Your task to perform on an android device: toggle location history Image 0: 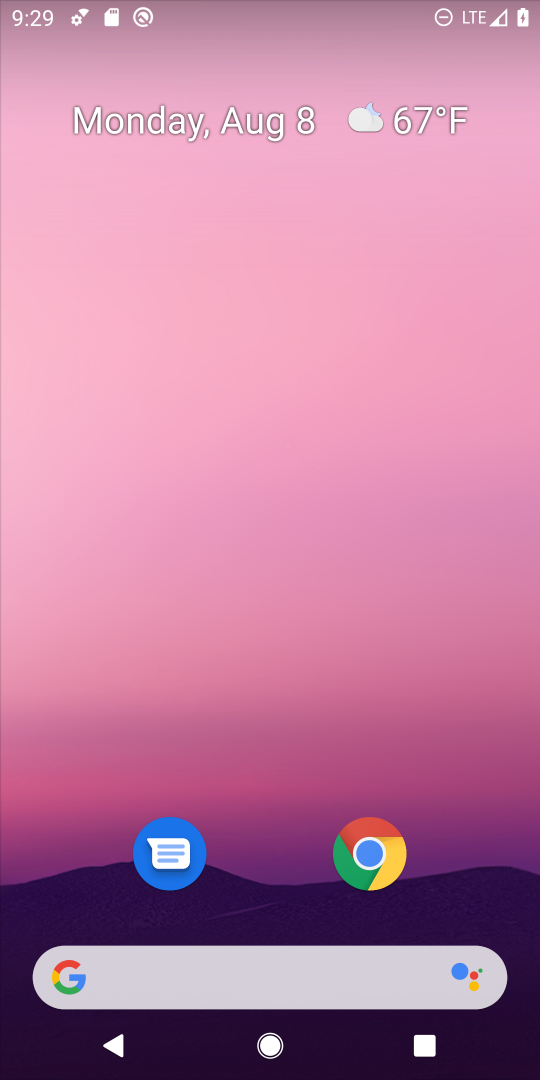
Step 0: drag from (246, 920) to (212, 4)
Your task to perform on an android device: toggle location history Image 1: 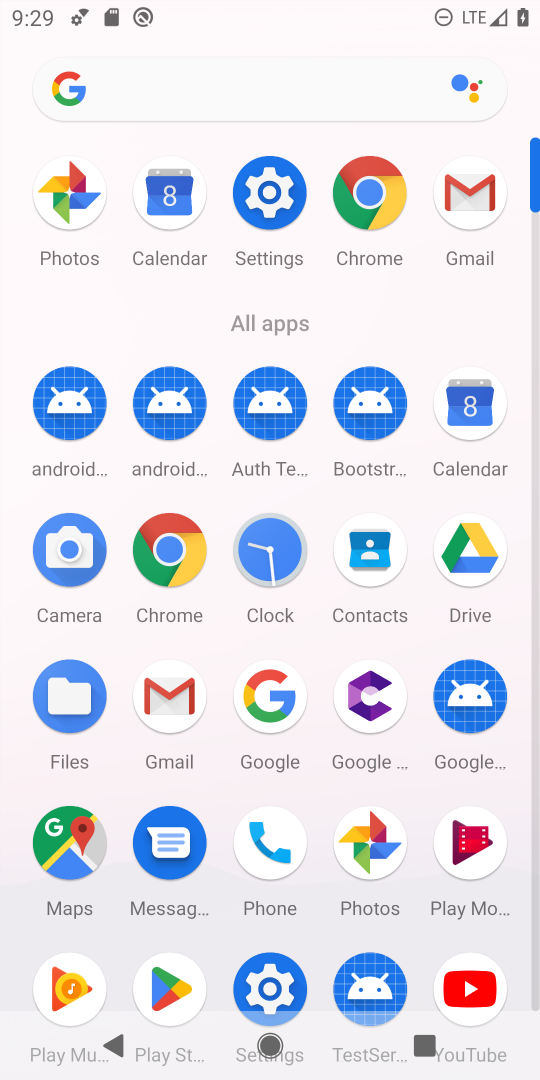
Step 1: click (277, 186)
Your task to perform on an android device: toggle location history Image 2: 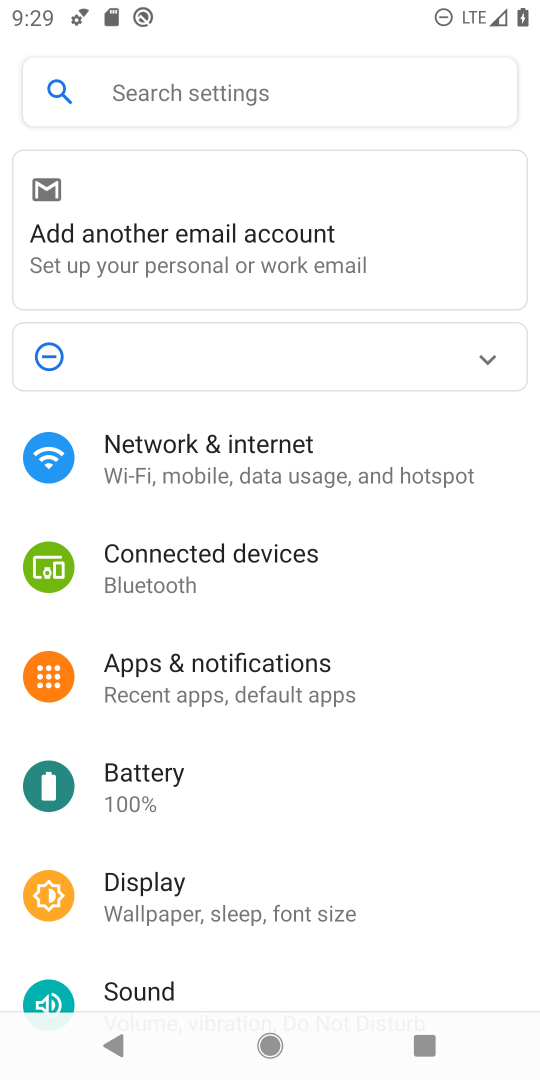
Step 2: drag from (402, 855) to (373, 375)
Your task to perform on an android device: toggle location history Image 3: 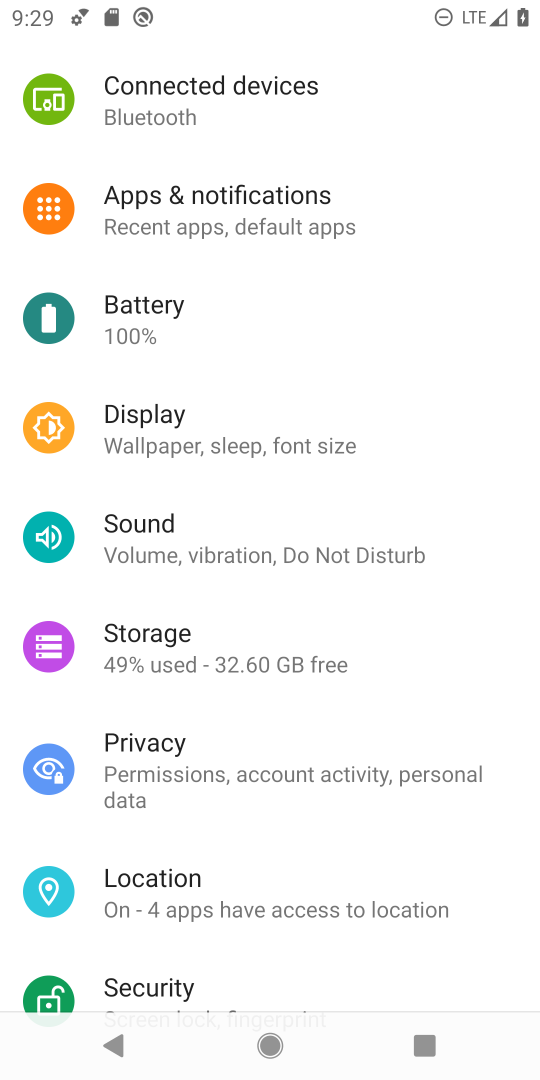
Step 3: click (221, 903)
Your task to perform on an android device: toggle location history Image 4: 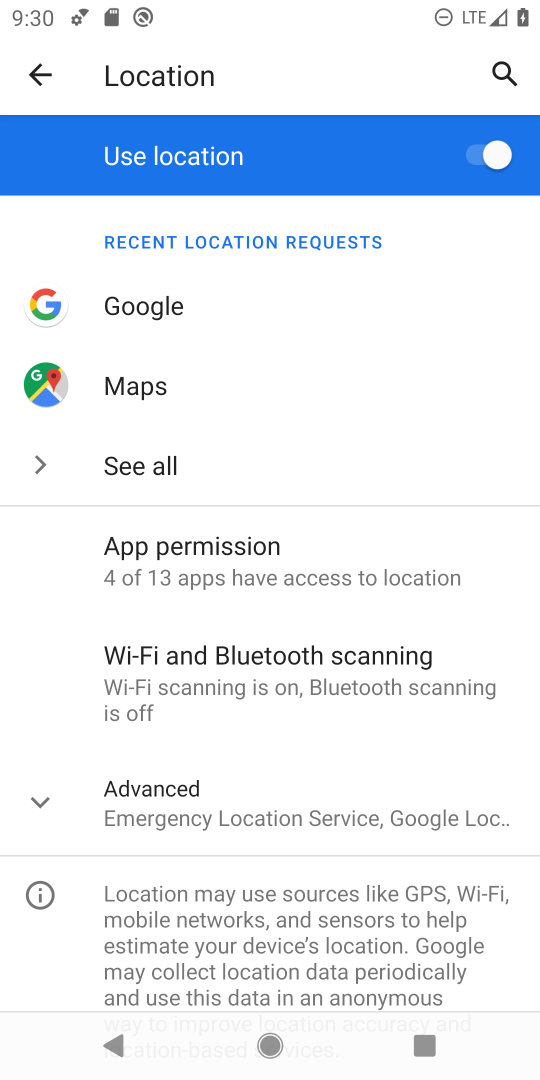
Step 4: click (229, 794)
Your task to perform on an android device: toggle location history Image 5: 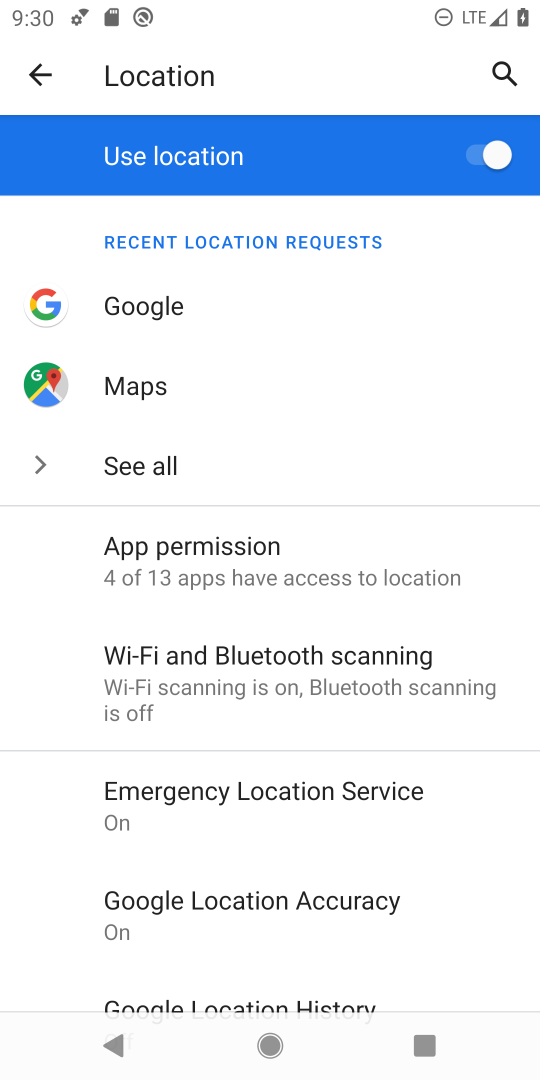
Step 5: drag from (328, 871) to (273, 696)
Your task to perform on an android device: toggle location history Image 6: 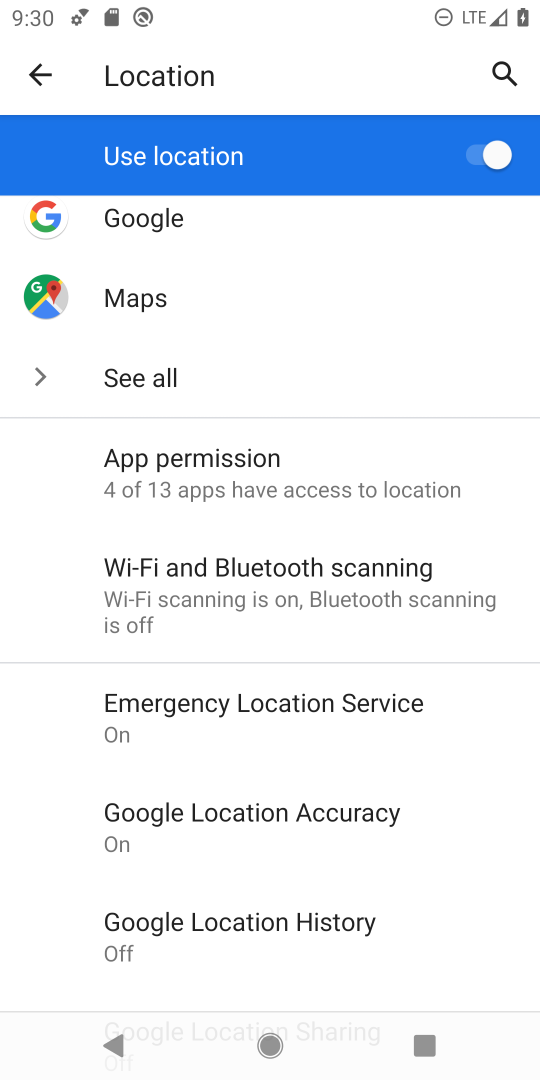
Step 6: click (248, 817)
Your task to perform on an android device: toggle location history Image 7: 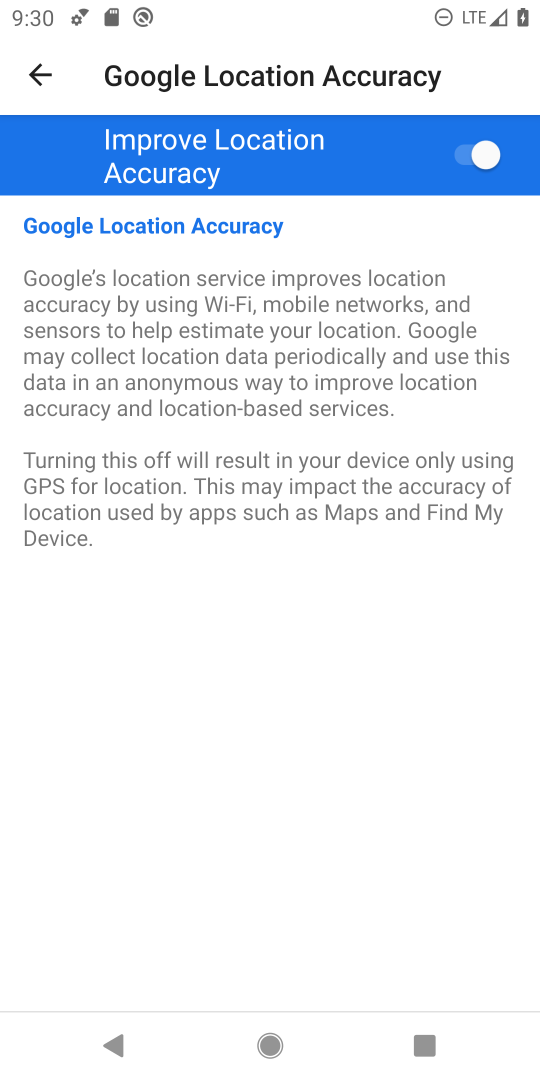
Step 7: click (33, 77)
Your task to perform on an android device: toggle location history Image 8: 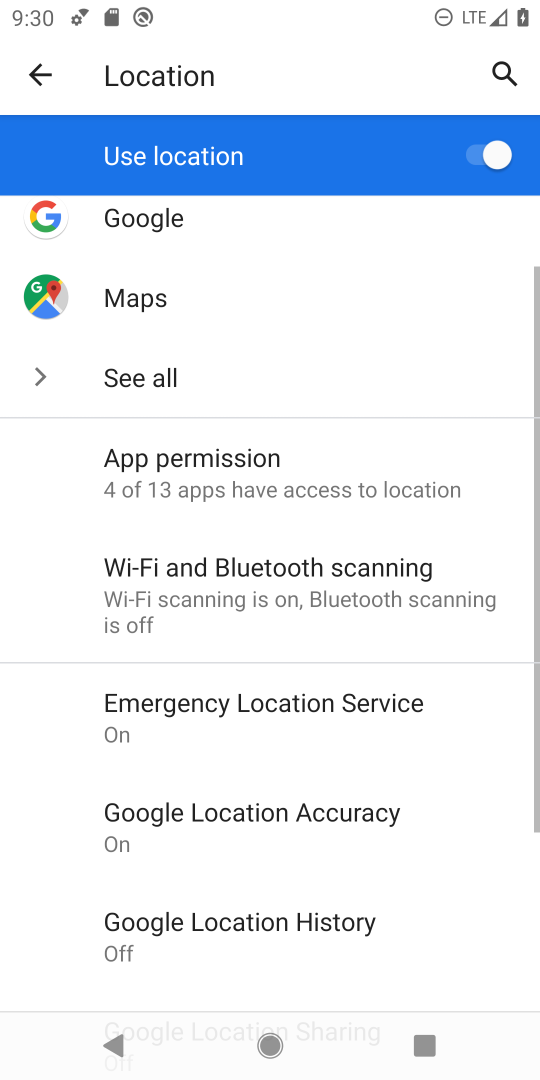
Step 8: click (201, 938)
Your task to perform on an android device: toggle location history Image 9: 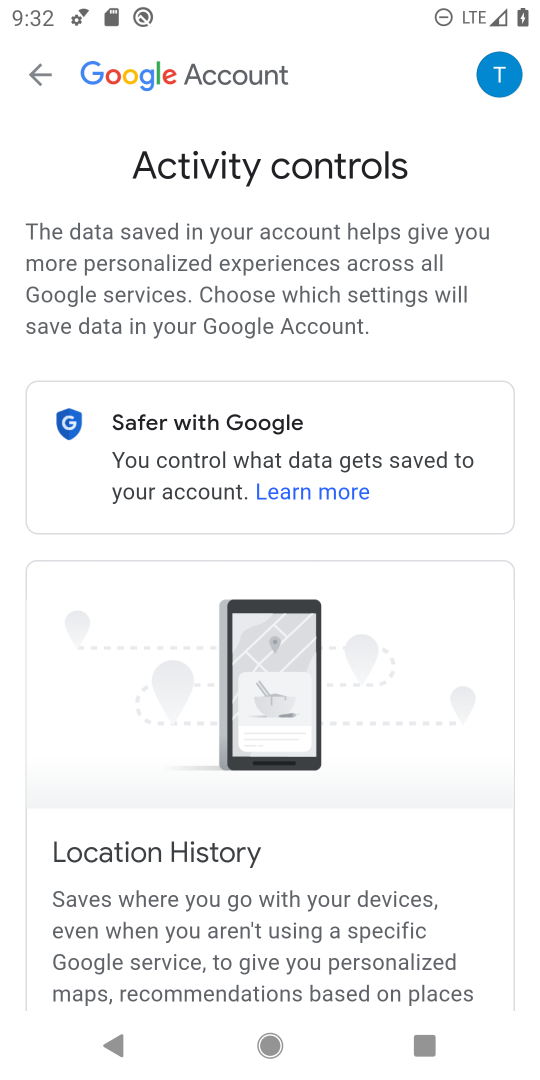
Step 9: task complete